Your task to perform on an android device: stop showing notifications on the lock screen Image 0: 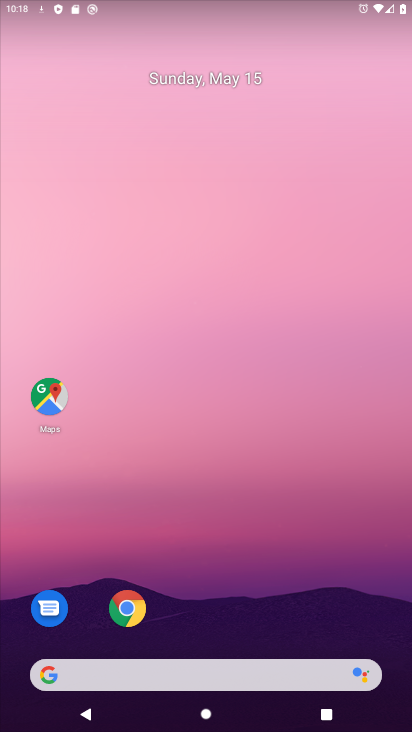
Step 0: drag from (312, 582) to (293, 86)
Your task to perform on an android device: stop showing notifications on the lock screen Image 1: 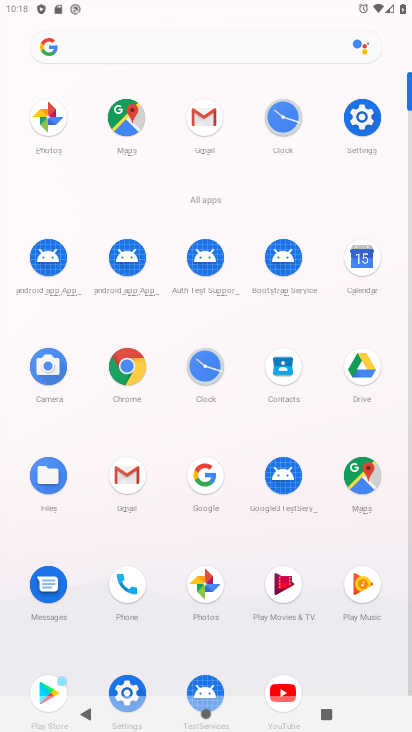
Step 1: drag from (156, 594) to (137, 254)
Your task to perform on an android device: stop showing notifications on the lock screen Image 2: 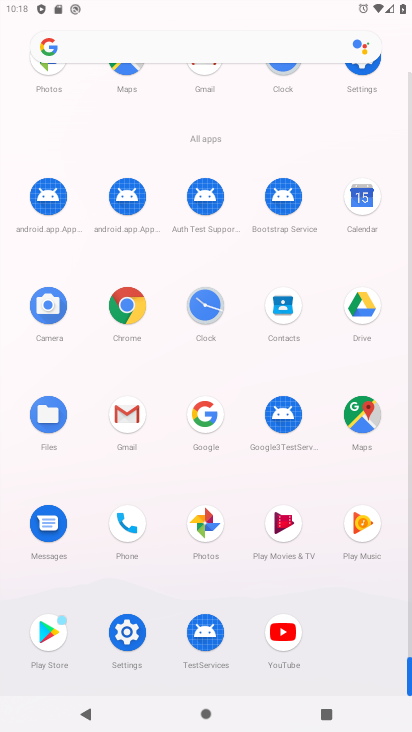
Step 2: click (131, 633)
Your task to perform on an android device: stop showing notifications on the lock screen Image 3: 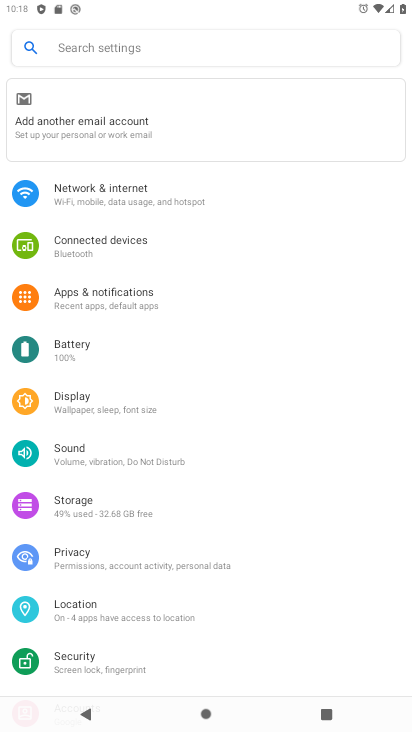
Step 3: click (115, 304)
Your task to perform on an android device: stop showing notifications on the lock screen Image 4: 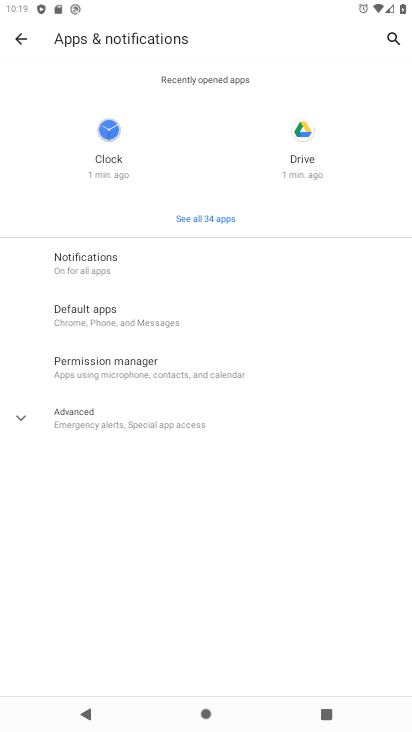
Step 4: click (121, 263)
Your task to perform on an android device: stop showing notifications on the lock screen Image 5: 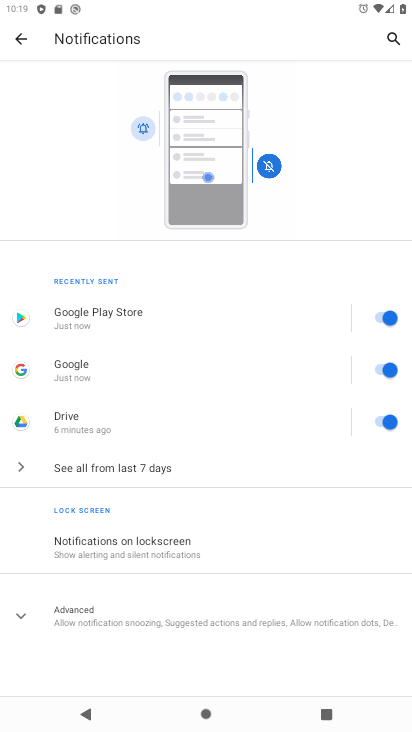
Step 5: click (120, 539)
Your task to perform on an android device: stop showing notifications on the lock screen Image 6: 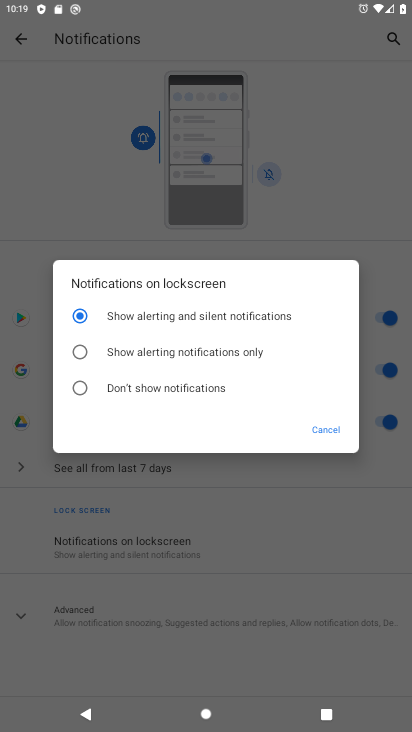
Step 6: click (82, 386)
Your task to perform on an android device: stop showing notifications on the lock screen Image 7: 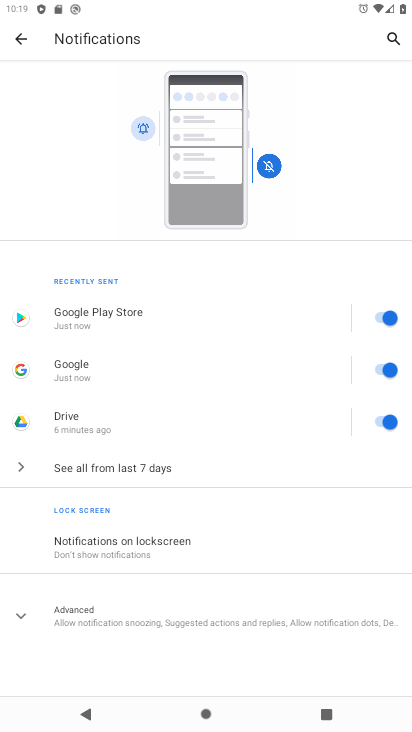
Step 7: task complete